Your task to perform on an android device: read, delete, or share a saved page in the chrome app Image 0: 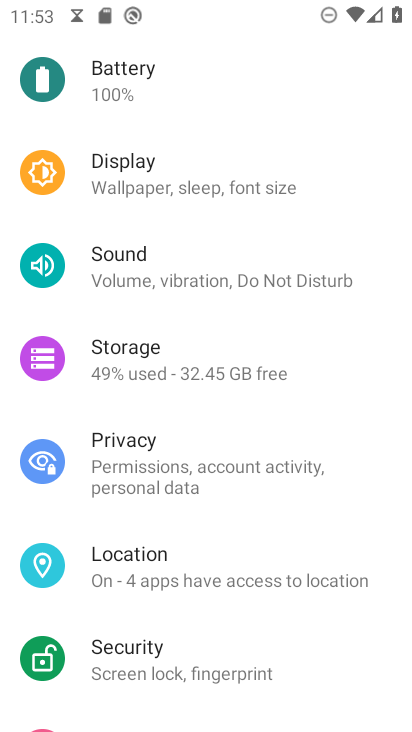
Step 0: press home button
Your task to perform on an android device: read, delete, or share a saved page in the chrome app Image 1: 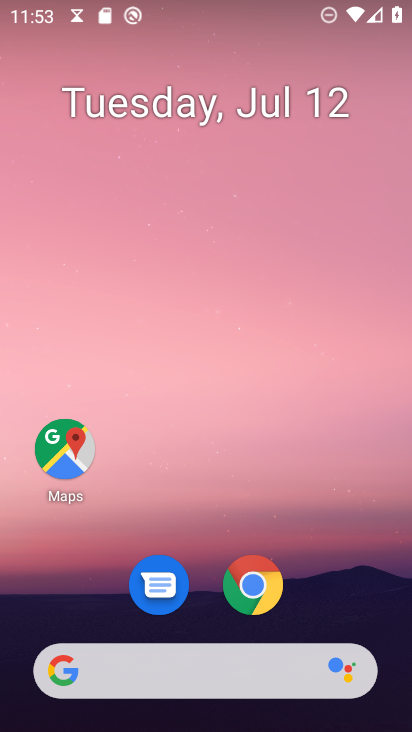
Step 1: click (248, 591)
Your task to perform on an android device: read, delete, or share a saved page in the chrome app Image 2: 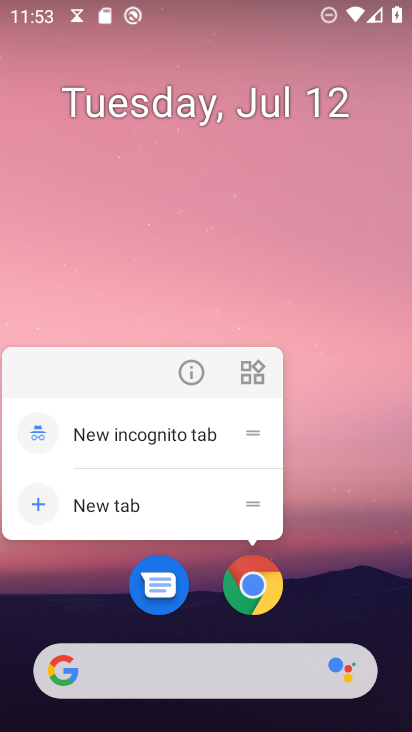
Step 2: click (245, 582)
Your task to perform on an android device: read, delete, or share a saved page in the chrome app Image 3: 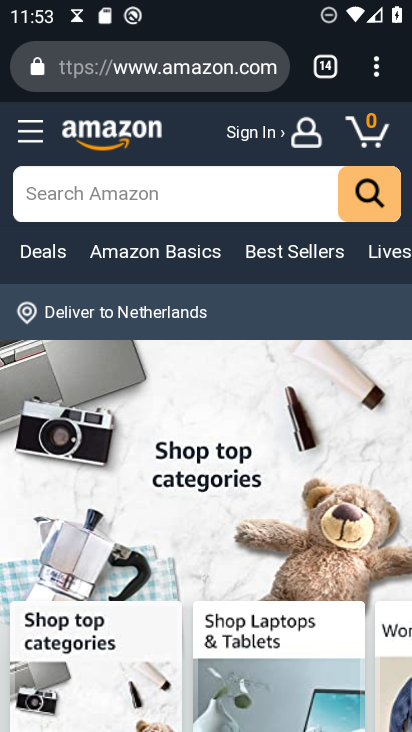
Step 3: drag from (372, 68) to (164, 446)
Your task to perform on an android device: read, delete, or share a saved page in the chrome app Image 4: 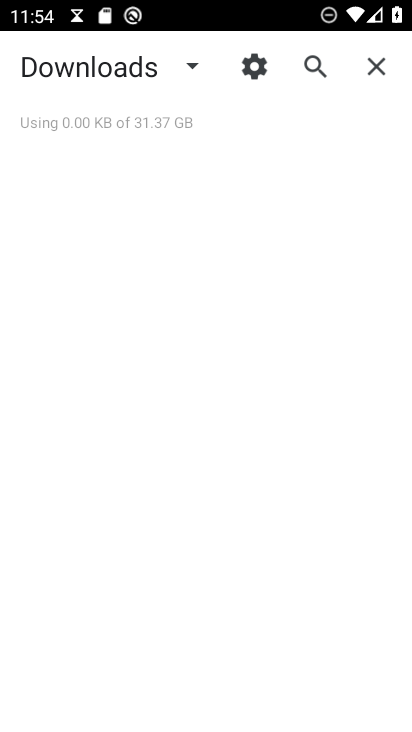
Step 4: click (185, 63)
Your task to perform on an android device: read, delete, or share a saved page in the chrome app Image 5: 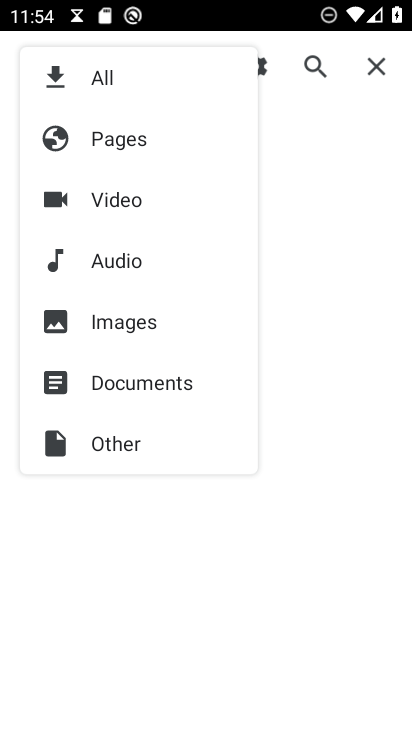
Step 5: click (117, 134)
Your task to perform on an android device: read, delete, or share a saved page in the chrome app Image 6: 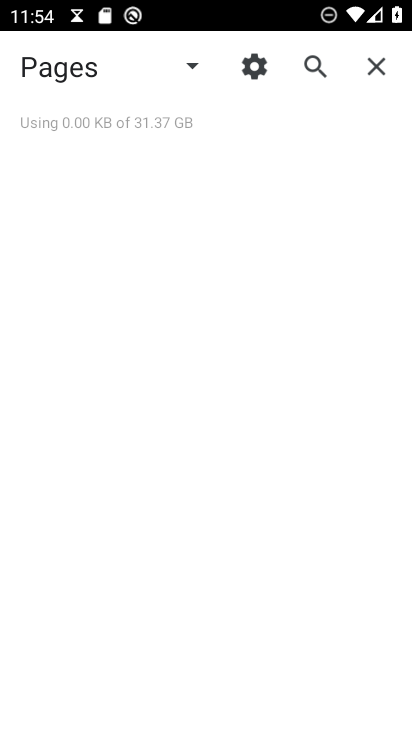
Step 6: task complete